Your task to perform on an android device: Go to accessibility settings Image 0: 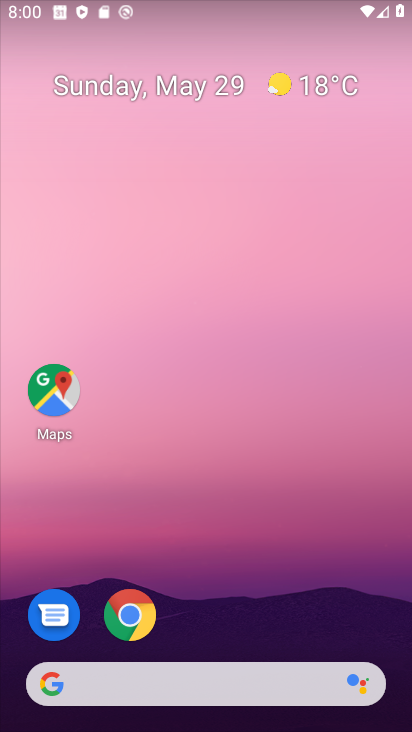
Step 0: drag from (116, 730) to (181, 38)
Your task to perform on an android device: Go to accessibility settings Image 1: 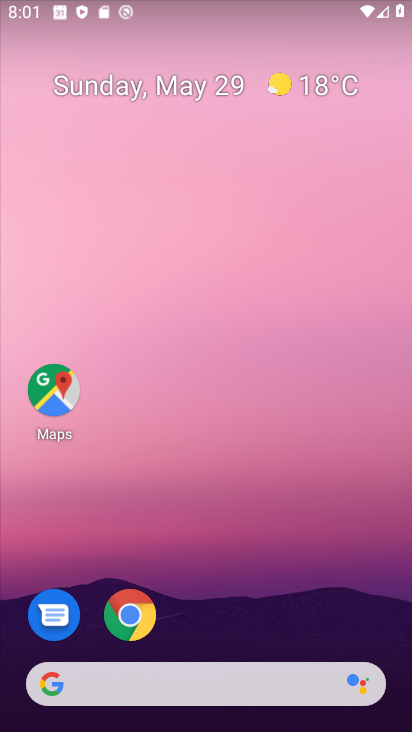
Step 1: drag from (133, 731) to (130, 10)
Your task to perform on an android device: Go to accessibility settings Image 2: 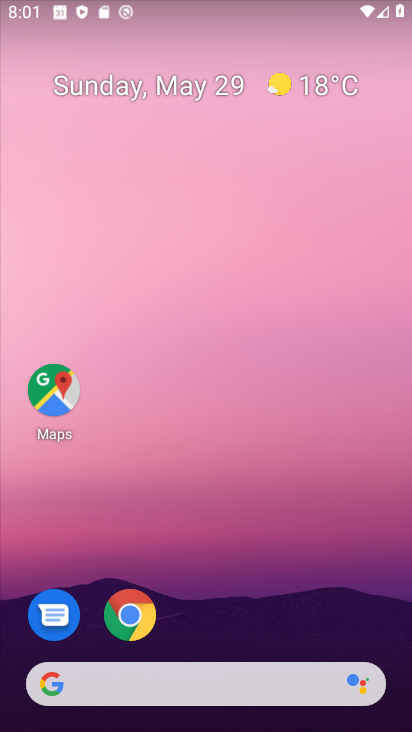
Step 2: drag from (125, 729) to (98, 20)
Your task to perform on an android device: Go to accessibility settings Image 3: 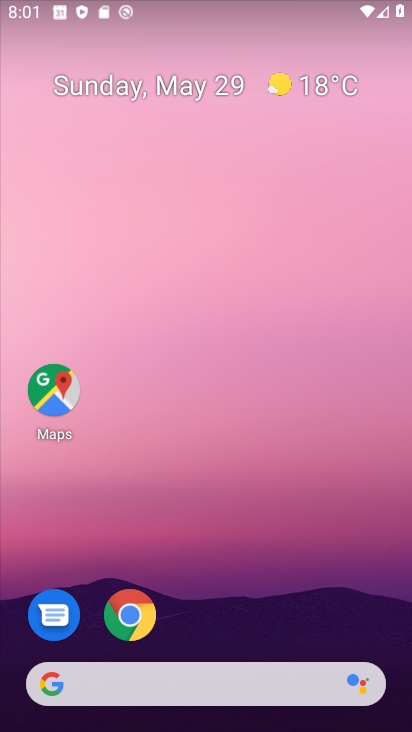
Step 3: drag from (144, 727) to (134, 44)
Your task to perform on an android device: Go to accessibility settings Image 4: 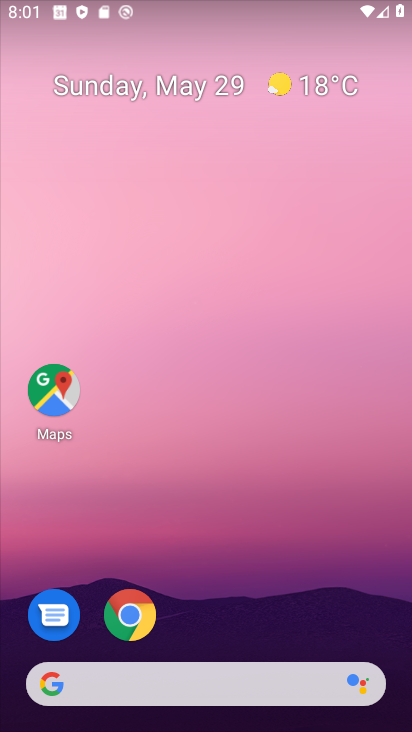
Step 4: drag from (119, 729) to (118, 24)
Your task to perform on an android device: Go to accessibility settings Image 5: 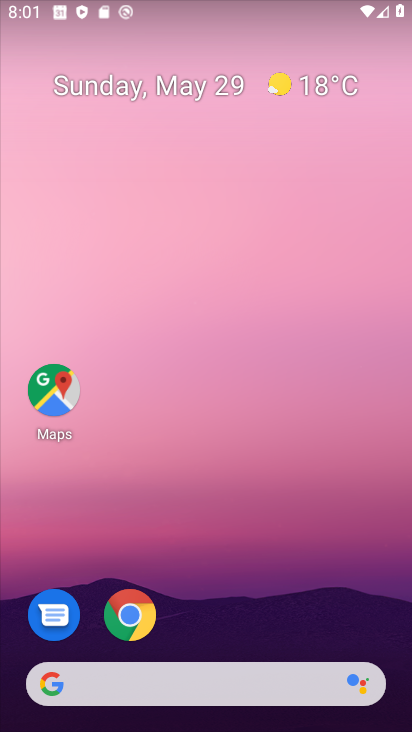
Step 5: press home button
Your task to perform on an android device: Go to accessibility settings Image 6: 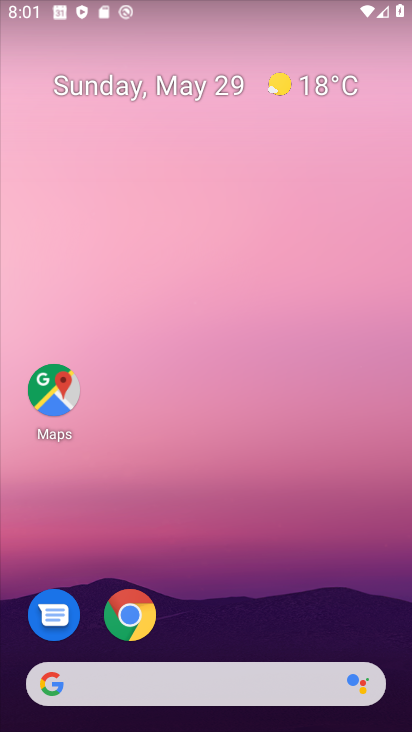
Step 6: drag from (225, 5) to (217, 569)
Your task to perform on an android device: Go to accessibility settings Image 7: 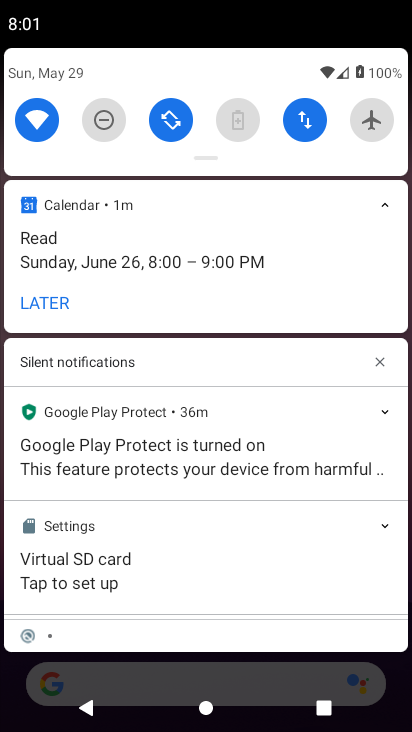
Step 7: drag from (208, 156) to (162, 656)
Your task to perform on an android device: Go to accessibility settings Image 8: 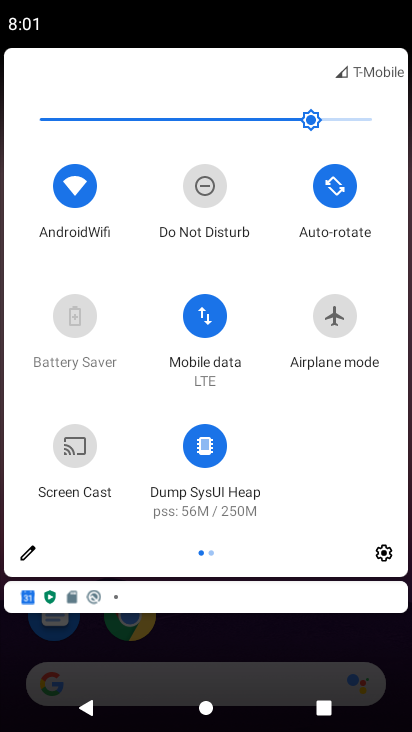
Step 8: click (385, 554)
Your task to perform on an android device: Go to accessibility settings Image 9: 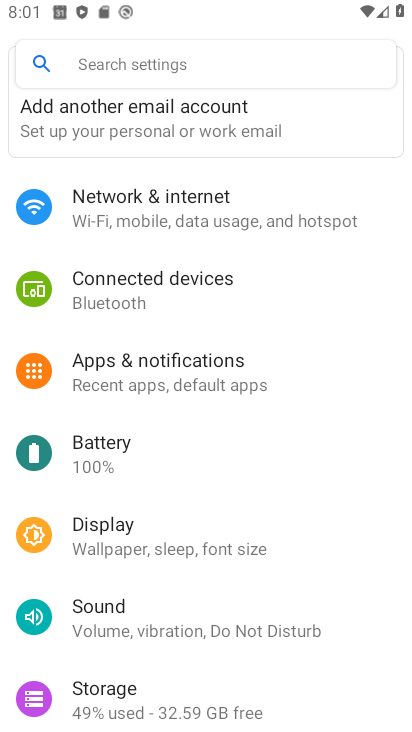
Step 9: drag from (303, 664) to (245, 123)
Your task to perform on an android device: Go to accessibility settings Image 10: 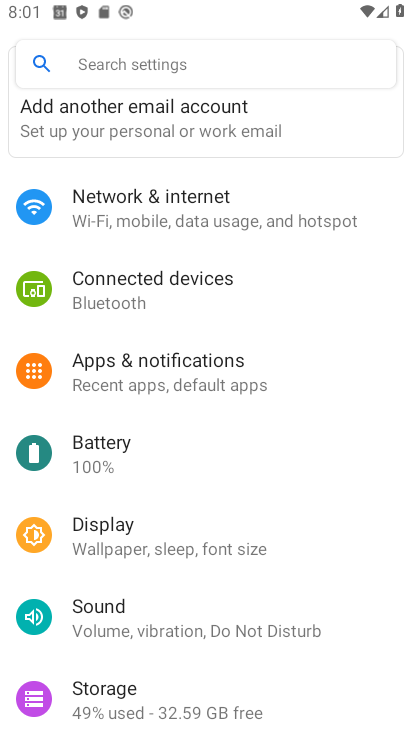
Step 10: drag from (356, 697) to (331, 130)
Your task to perform on an android device: Go to accessibility settings Image 11: 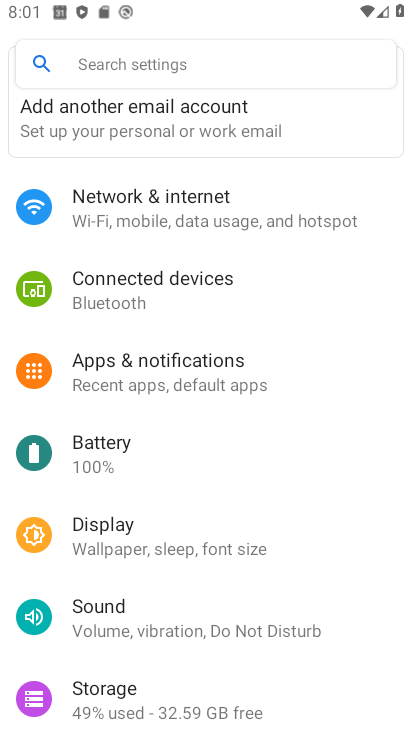
Step 11: drag from (235, 672) to (184, 171)
Your task to perform on an android device: Go to accessibility settings Image 12: 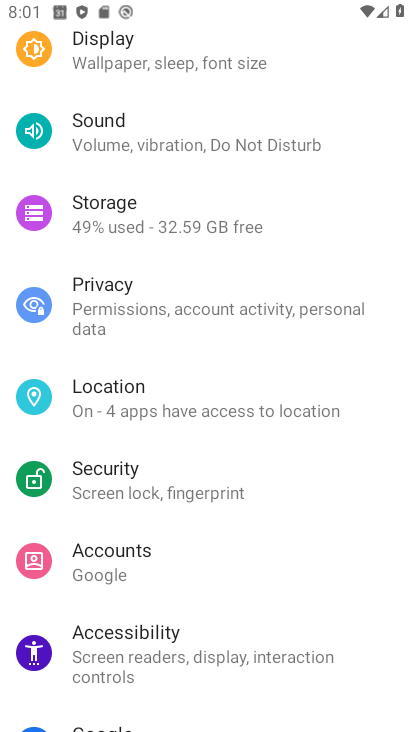
Step 12: click (163, 646)
Your task to perform on an android device: Go to accessibility settings Image 13: 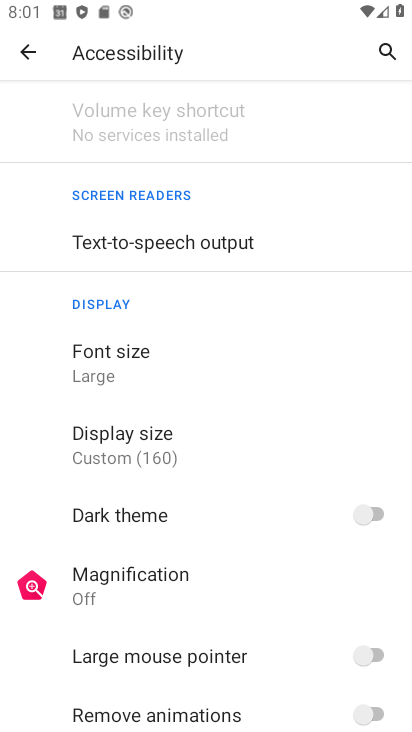
Step 13: task complete